Your task to perform on an android device: open app "Firefox Browser" (install if not already installed) Image 0: 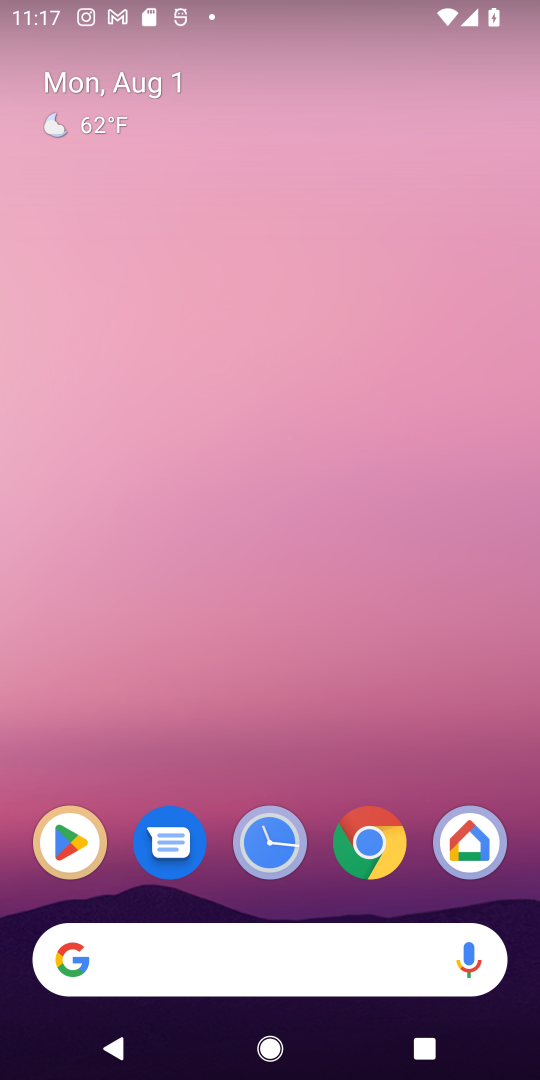
Step 0: click (82, 834)
Your task to perform on an android device: open app "Firefox Browser" (install if not already installed) Image 1: 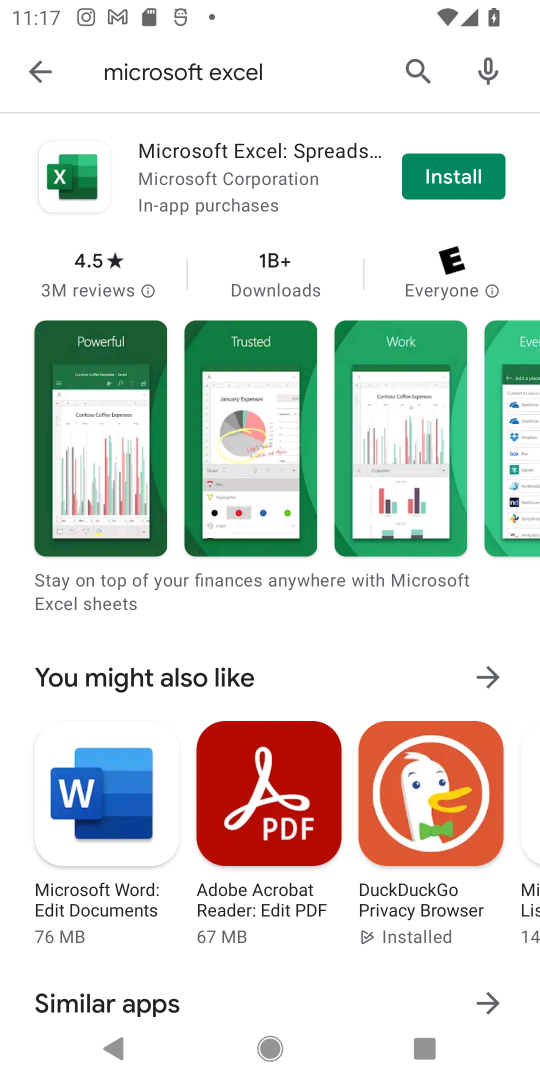
Step 1: click (430, 99)
Your task to perform on an android device: open app "Firefox Browser" (install if not already installed) Image 2: 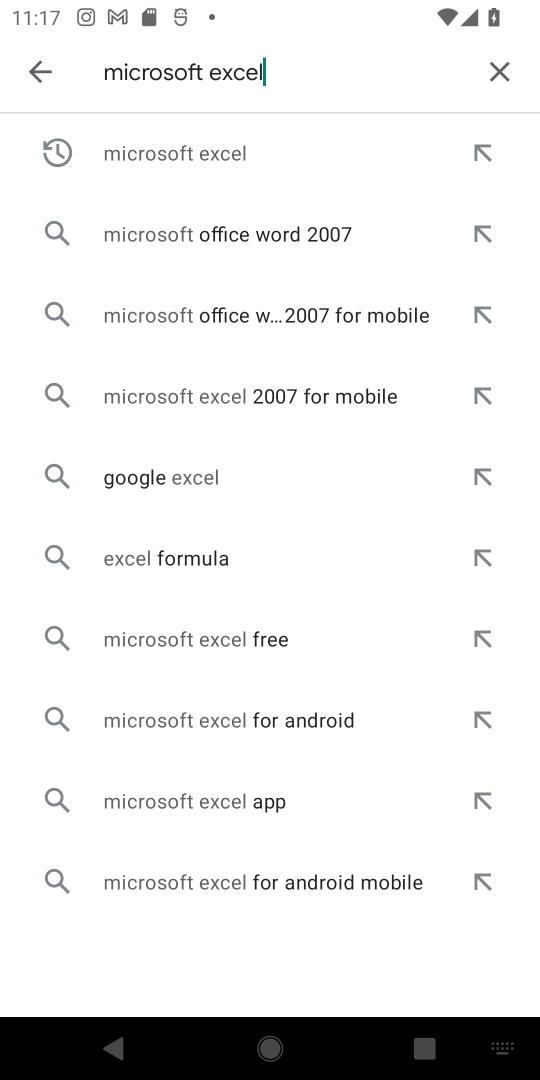
Step 2: click (497, 76)
Your task to perform on an android device: open app "Firefox Browser" (install if not already installed) Image 3: 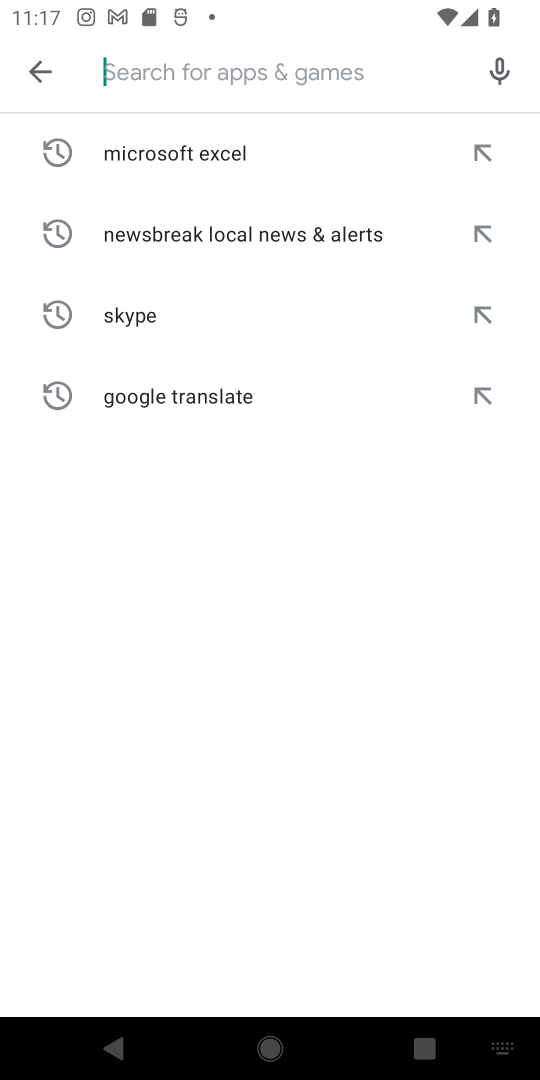
Step 3: click (170, 58)
Your task to perform on an android device: open app "Firefox Browser" (install if not already installed) Image 4: 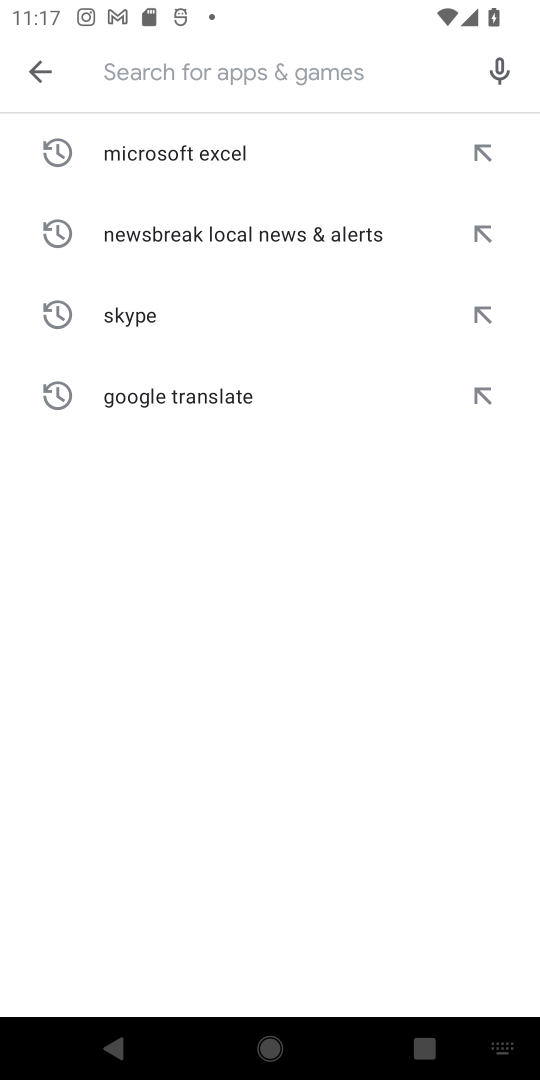
Step 4: type "Firefox Browser"
Your task to perform on an android device: open app "Firefox Browser" (install if not already installed) Image 5: 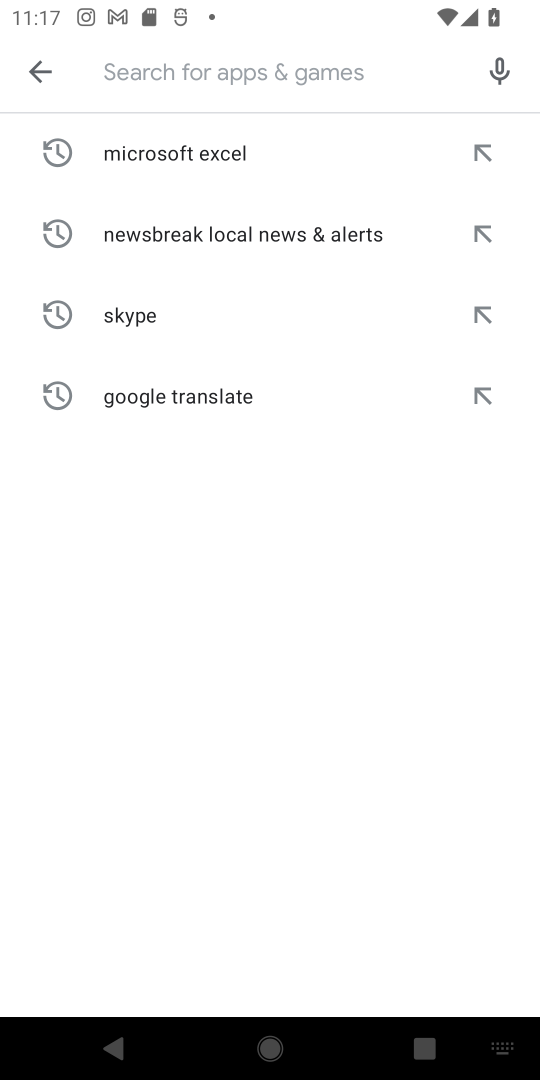
Step 5: click (149, 632)
Your task to perform on an android device: open app "Firefox Browser" (install if not already installed) Image 6: 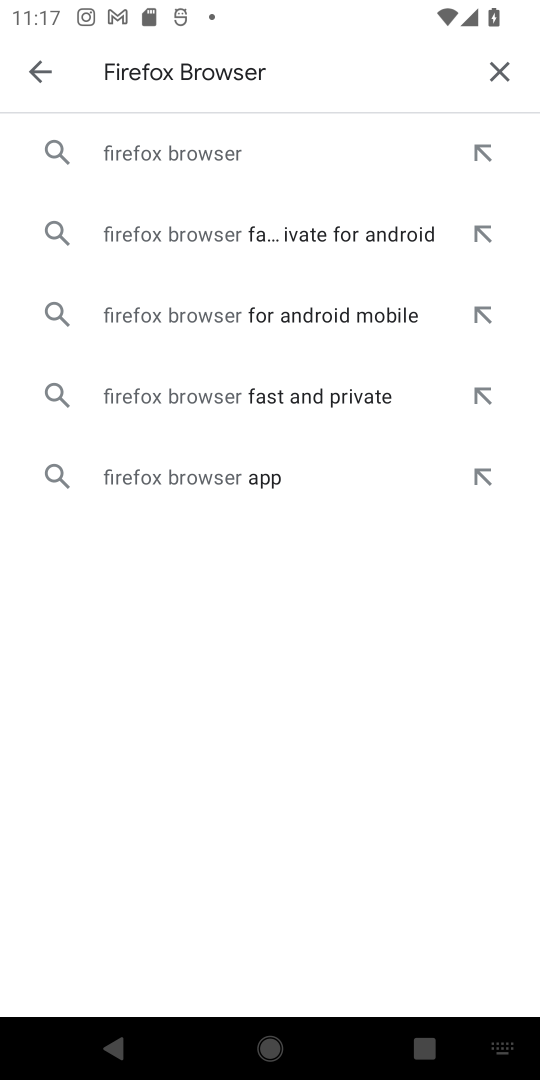
Step 6: click (158, 159)
Your task to perform on an android device: open app "Firefox Browser" (install if not already installed) Image 7: 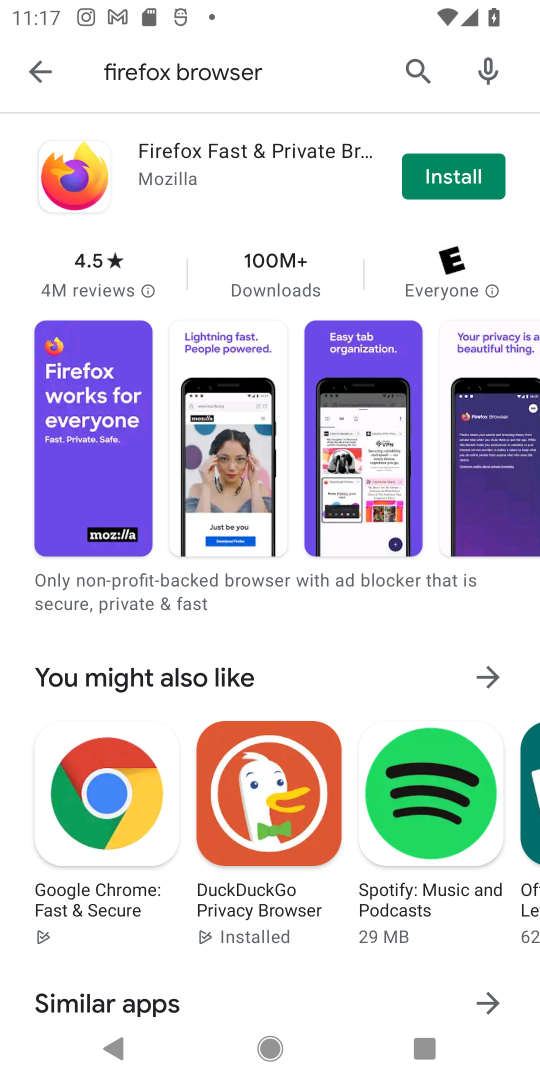
Step 7: click (466, 180)
Your task to perform on an android device: open app "Firefox Browser" (install if not already installed) Image 8: 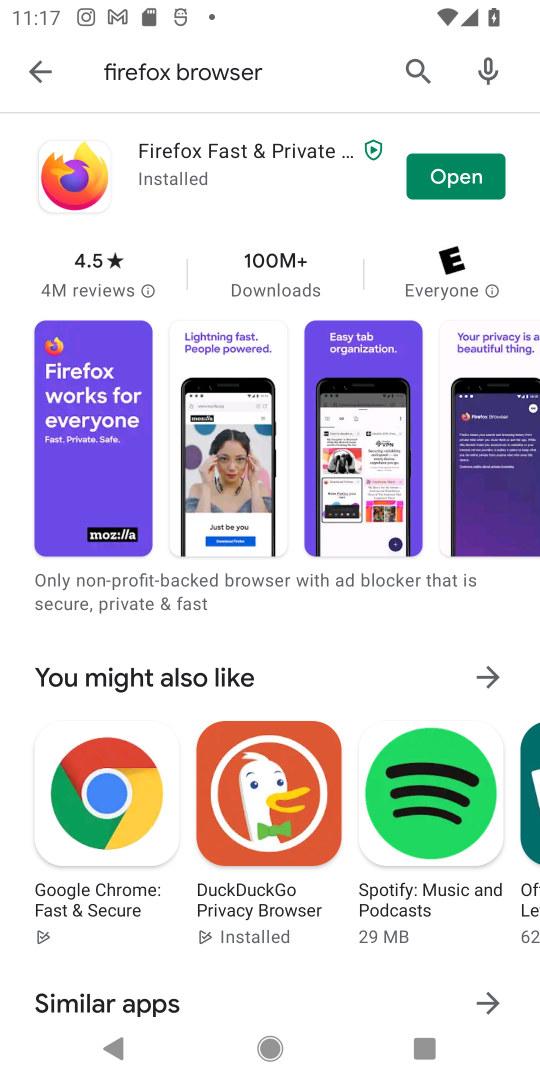
Step 8: click (451, 179)
Your task to perform on an android device: open app "Firefox Browser" (install if not already installed) Image 9: 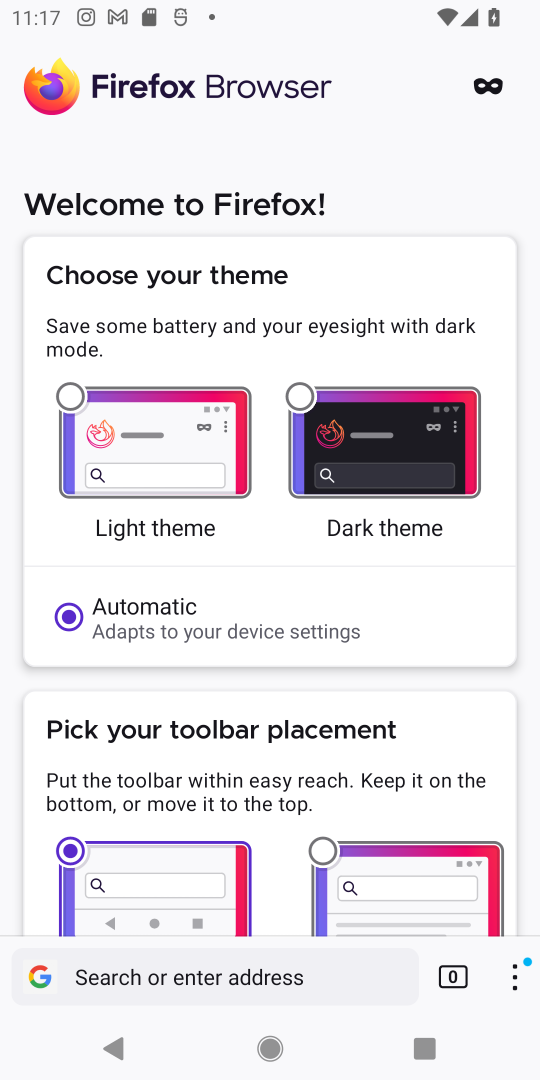
Step 9: task complete